Your task to perform on an android device: Open the map Image 0: 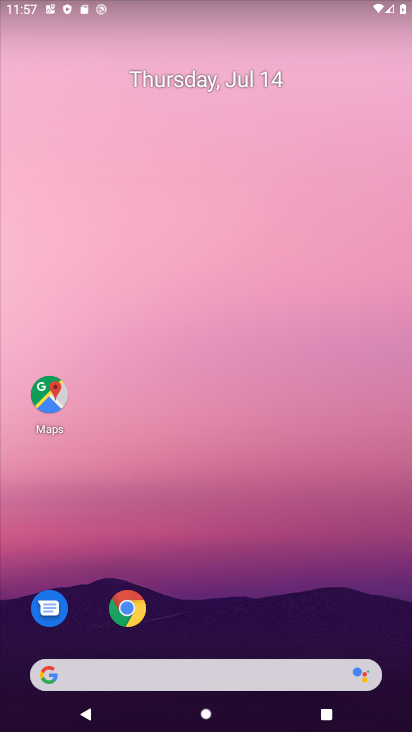
Step 0: drag from (289, 684) to (298, 14)
Your task to perform on an android device: Open the map Image 1: 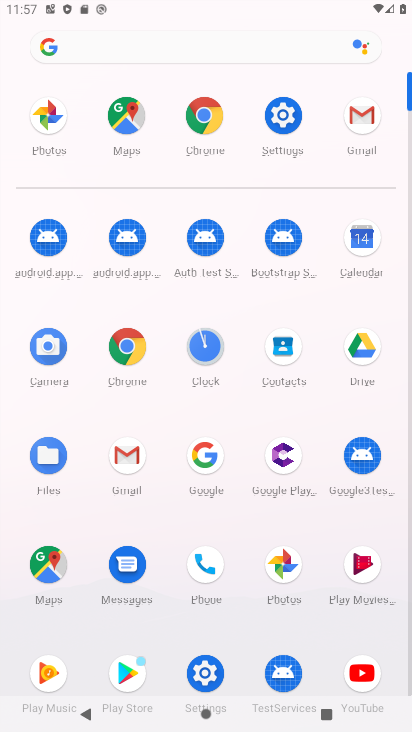
Step 1: click (47, 562)
Your task to perform on an android device: Open the map Image 2: 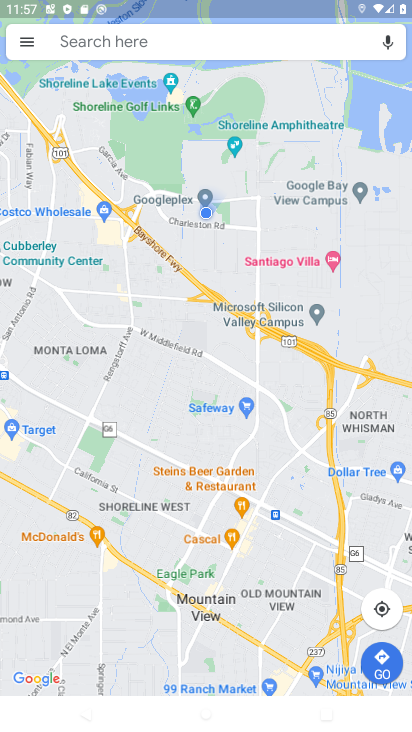
Step 2: task complete